Your task to perform on an android device: turn on location history Image 0: 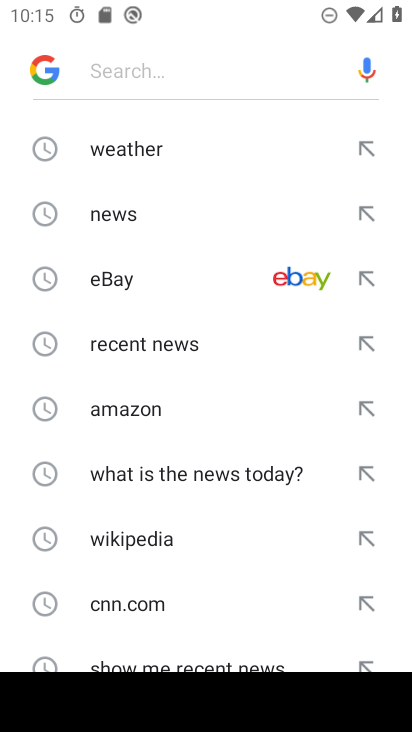
Step 0: press home button
Your task to perform on an android device: turn on location history Image 1: 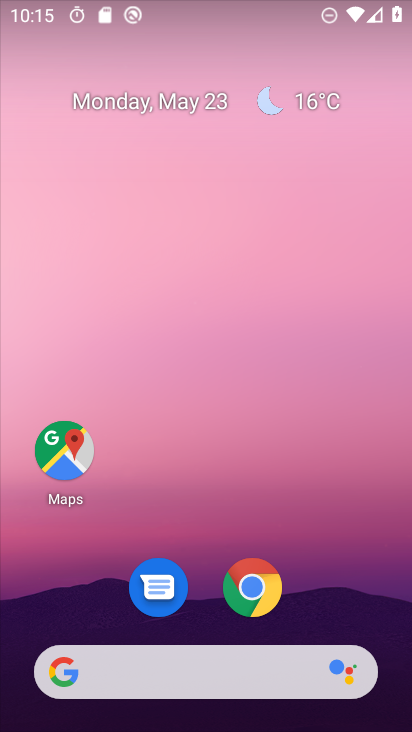
Step 1: drag from (169, 516) to (221, 93)
Your task to perform on an android device: turn on location history Image 2: 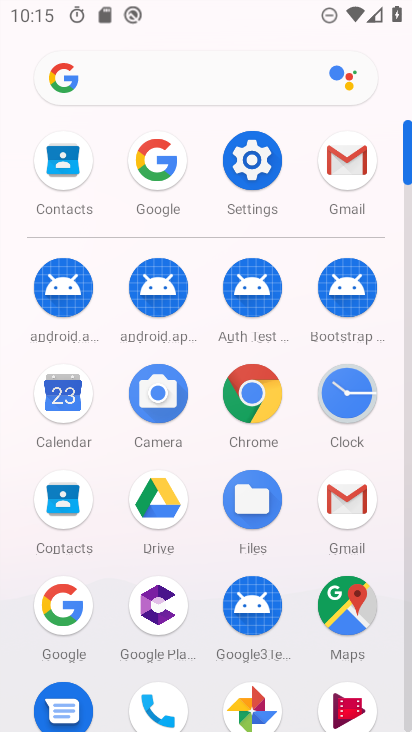
Step 2: click (253, 159)
Your task to perform on an android device: turn on location history Image 3: 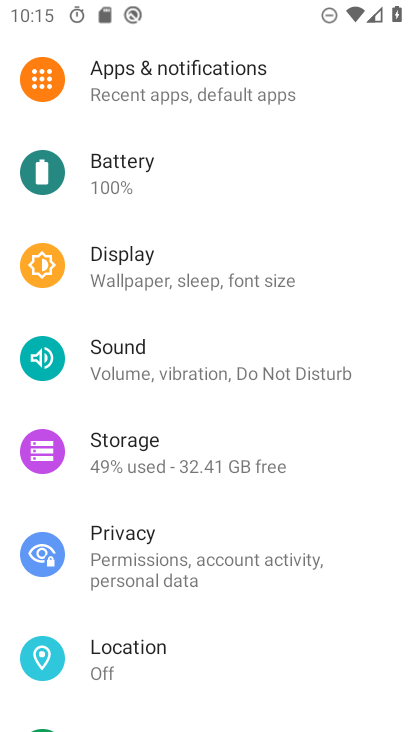
Step 3: click (147, 649)
Your task to perform on an android device: turn on location history Image 4: 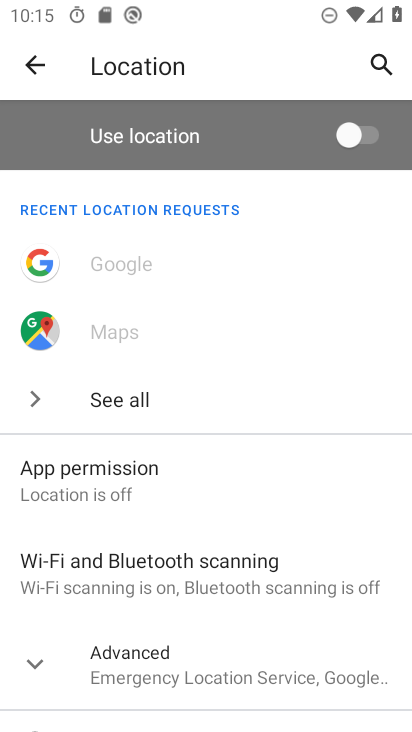
Step 4: click (167, 669)
Your task to perform on an android device: turn on location history Image 5: 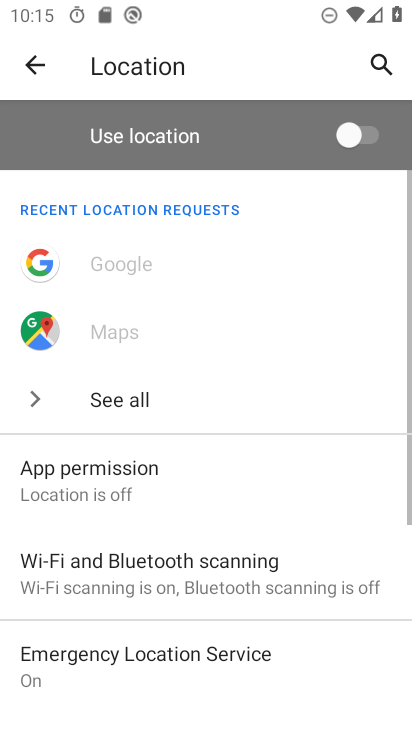
Step 5: drag from (183, 655) to (249, 245)
Your task to perform on an android device: turn on location history Image 6: 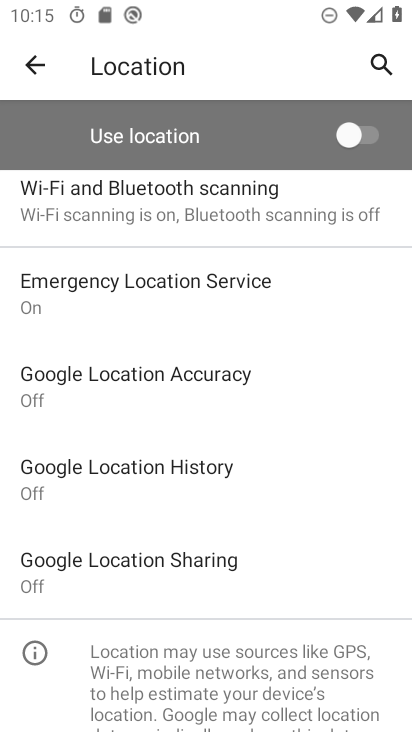
Step 6: click (129, 478)
Your task to perform on an android device: turn on location history Image 7: 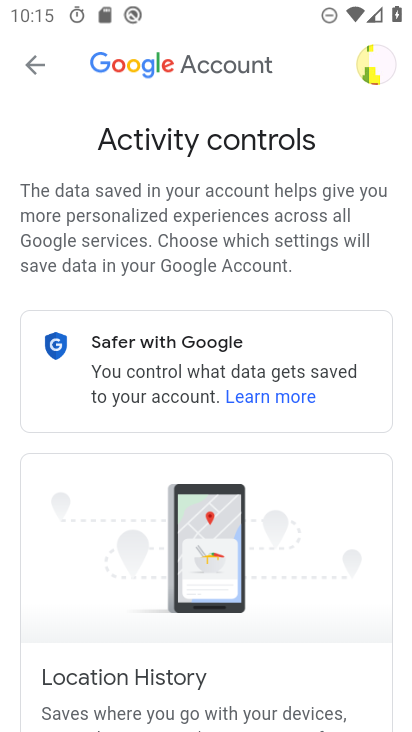
Step 7: task complete